Your task to perform on an android device: Open calendar and show me the fourth week of next month Image 0: 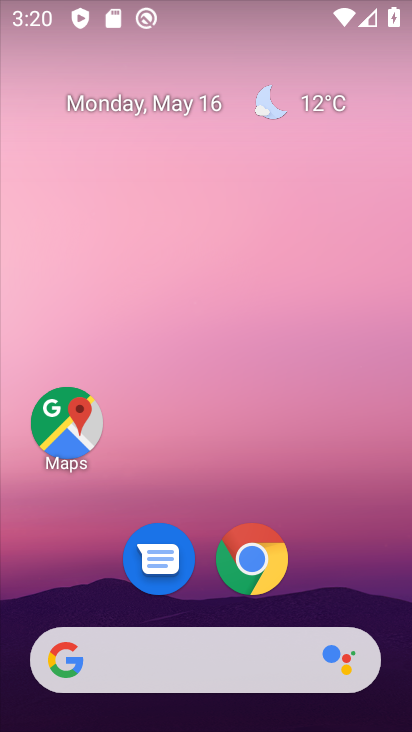
Step 0: drag from (359, 573) to (369, 479)
Your task to perform on an android device: Open calendar and show me the fourth week of next month Image 1: 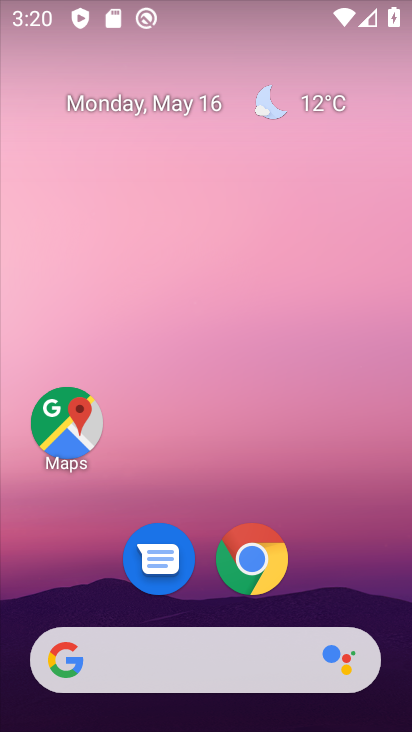
Step 1: drag from (336, 565) to (310, 174)
Your task to perform on an android device: Open calendar and show me the fourth week of next month Image 2: 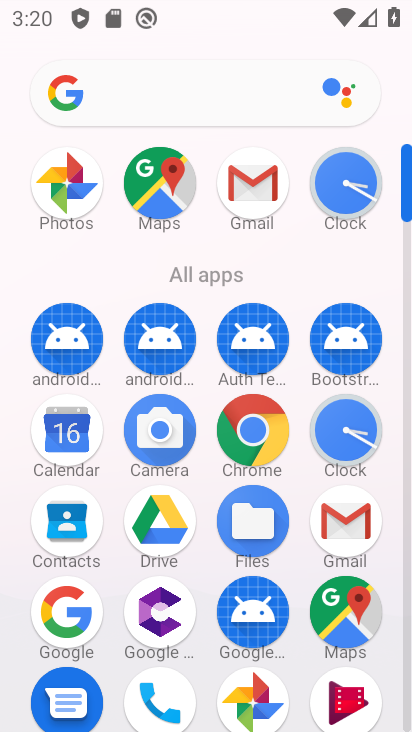
Step 2: click (70, 459)
Your task to perform on an android device: Open calendar and show me the fourth week of next month Image 3: 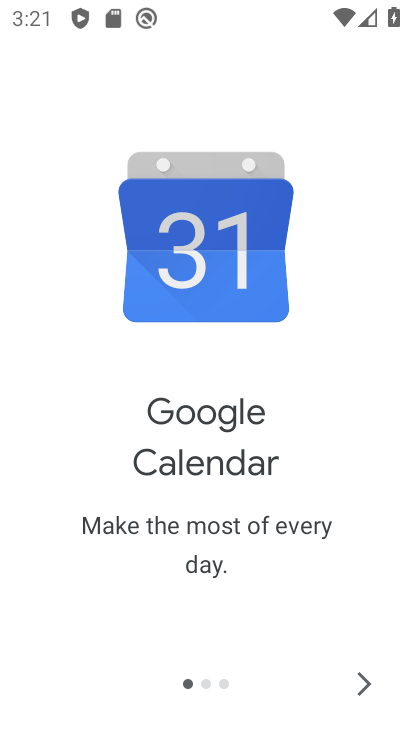
Step 3: click (357, 701)
Your task to perform on an android device: Open calendar and show me the fourth week of next month Image 4: 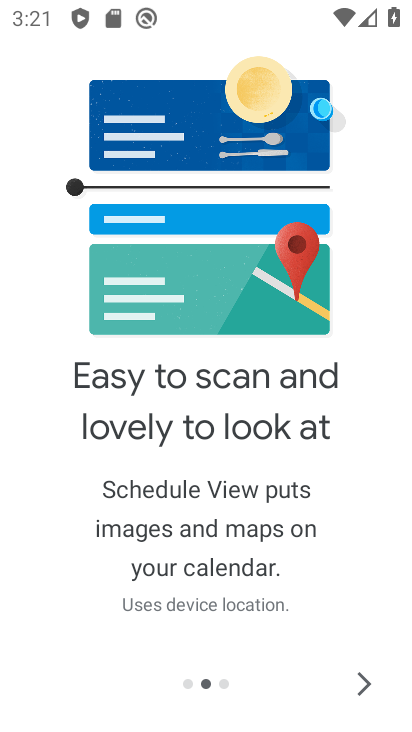
Step 4: click (357, 701)
Your task to perform on an android device: Open calendar and show me the fourth week of next month Image 5: 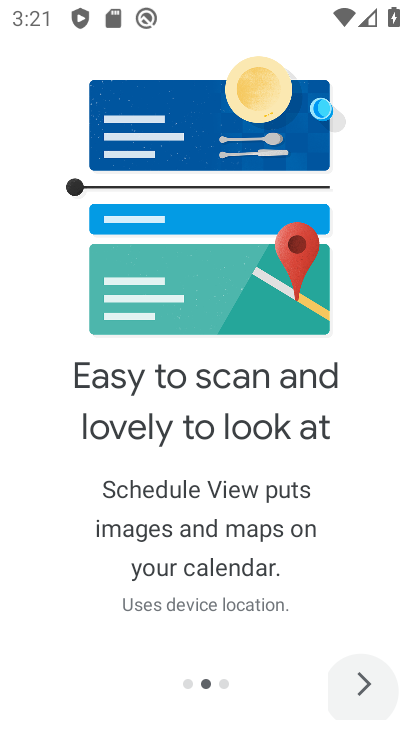
Step 5: click (357, 701)
Your task to perform on an android device: Open calendar and show me the fourth week of next month Image 6: 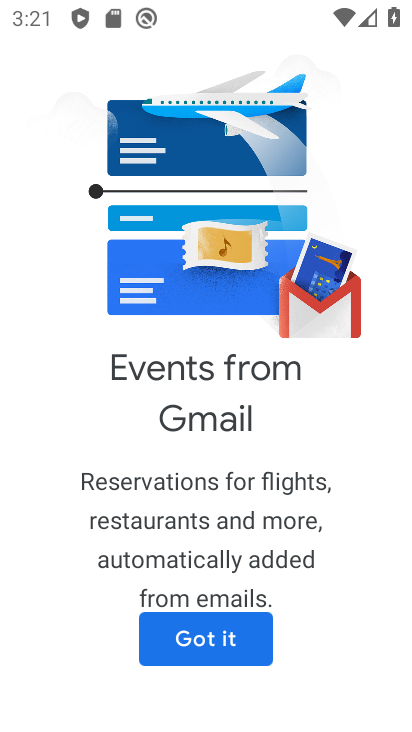
Step 6: click (258, 654)
Your task to perform on an android device: Open calendar and show me the fourth week of next month Image 7: 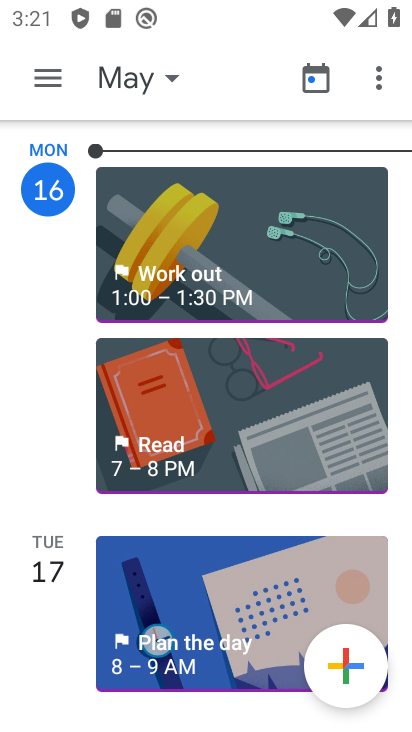
Step 7: click (120, 85)
Your task to perform on an android device: Open calendar and show me the fourth week of next month Image 8: 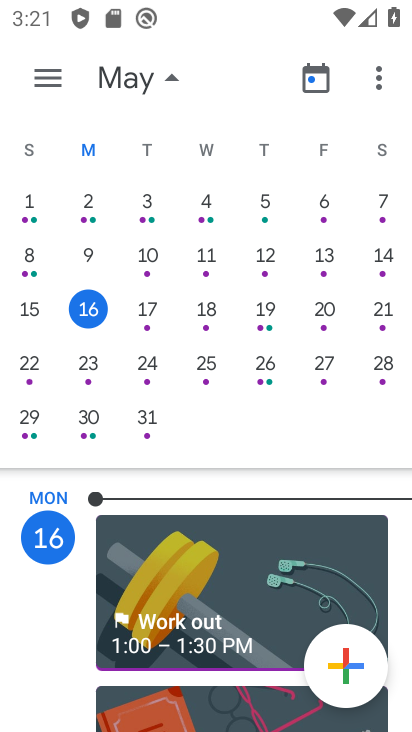
Step 8: drag from (391, 342) to (169, 372)
Your task to perform on an android device: Open calendar and show me the fourth week of next month Image 9: 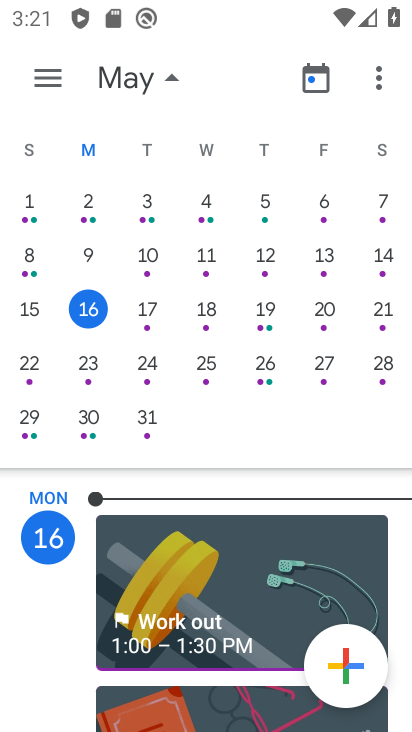
Step 9: click (358, 314)
Your task to perform on an android device: Open calendar and show me the fourth week of next month Image 10: 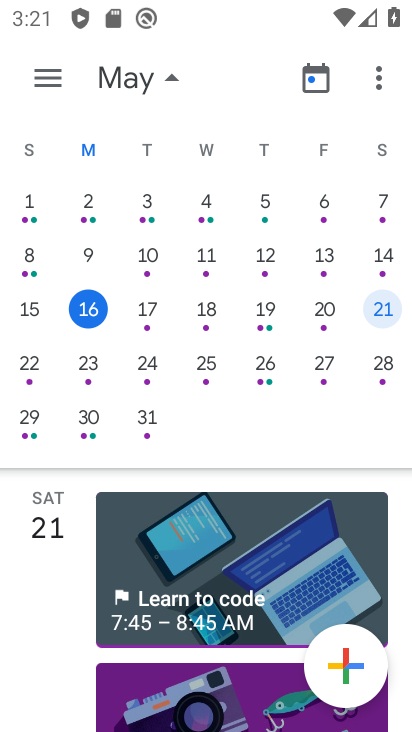
Step 10: drag from (288, 314) to (80, 289)
Your task to perform on an android device: Open calendar and show me the fourth week of next month Image 11: 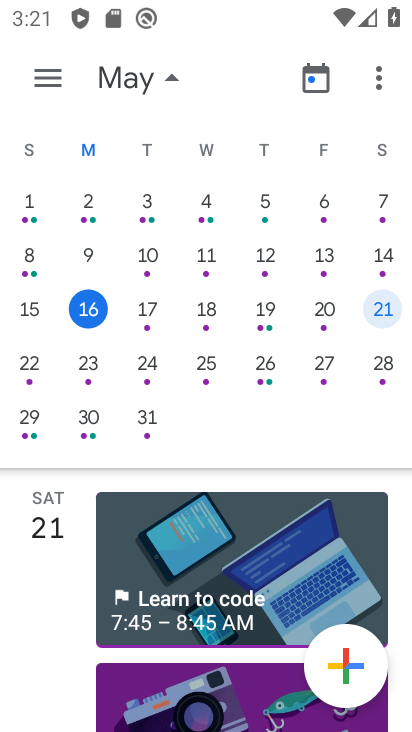
Step 11: drag from (377, 310) to (4, 274)
Your task to perform on an android device: Open calendar and show me the fourth week of next month Image 12: 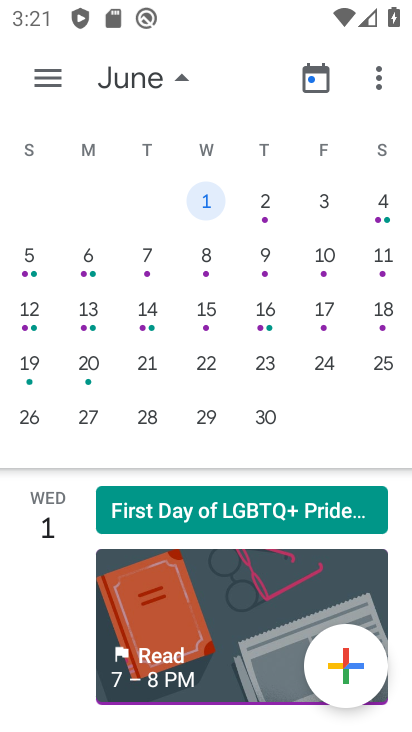
Step 12: drag from (383, 339) to (3, 274)
Your task to perform on an android device: Open calendar and show me the fourth week of next month Image 13: 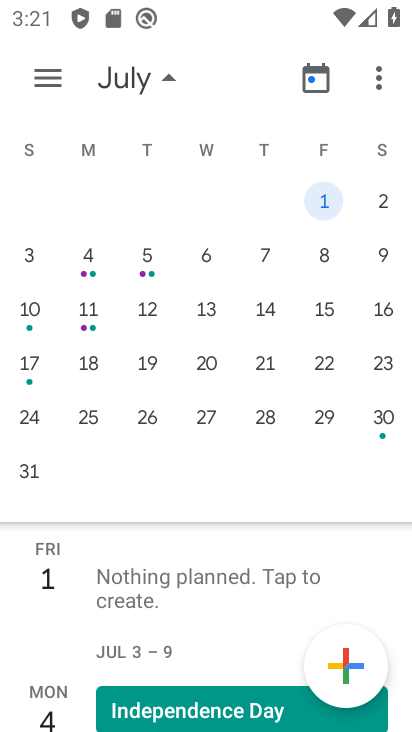
Step 13: click (260, 380)
Your task to perform on an android device: Open calendar and show me the fourth week of next month Image 14: 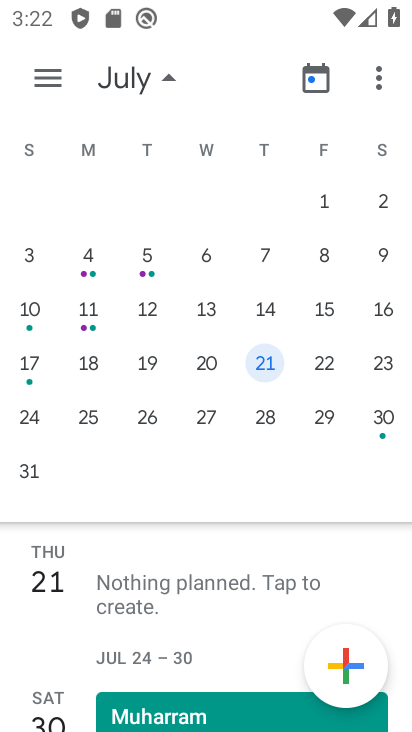
Step 14: task complete